Your task to perform on an android device: Open settings Image 0: 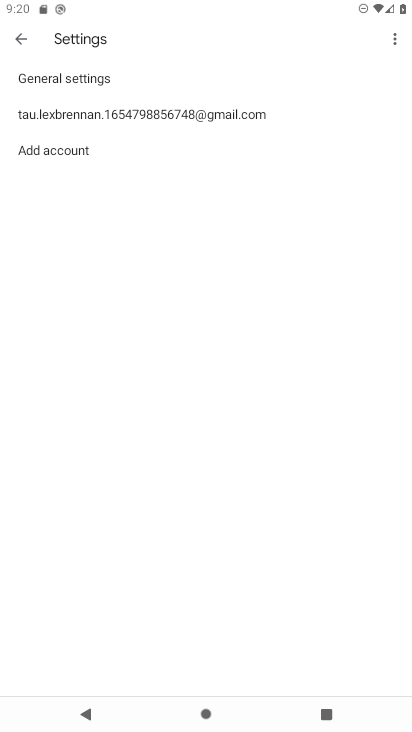
Step 0: press home button
Your task to perform on an android device: Open settings Image 1: 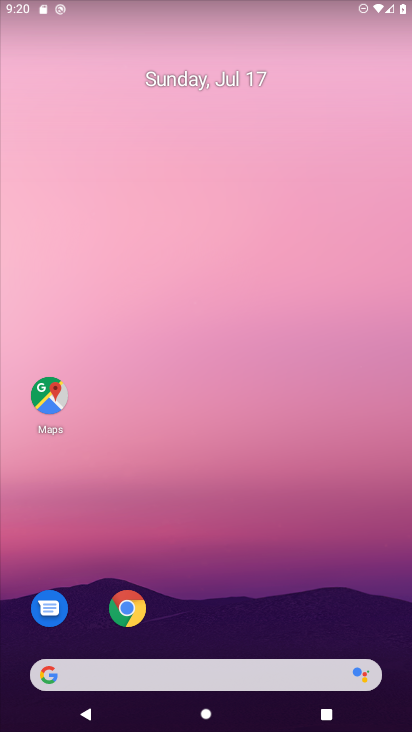
Step 1: drag from (213, 682) to (220, 201)
Your task to perform on an android device: Open settings Image 2: 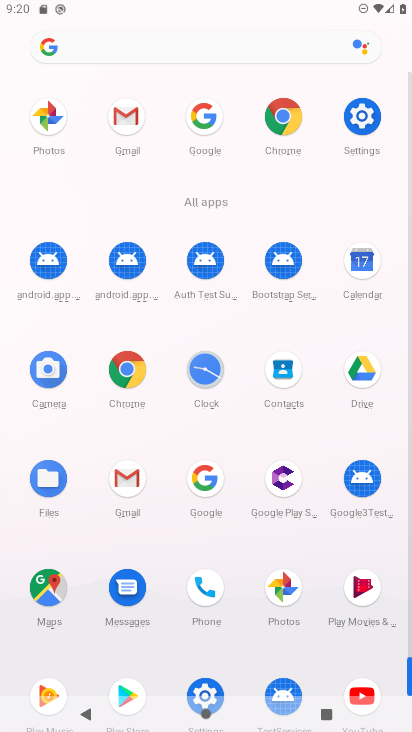
Step 2: click (357, 115)
Your task to perform on an android device: Open settings Image 3: 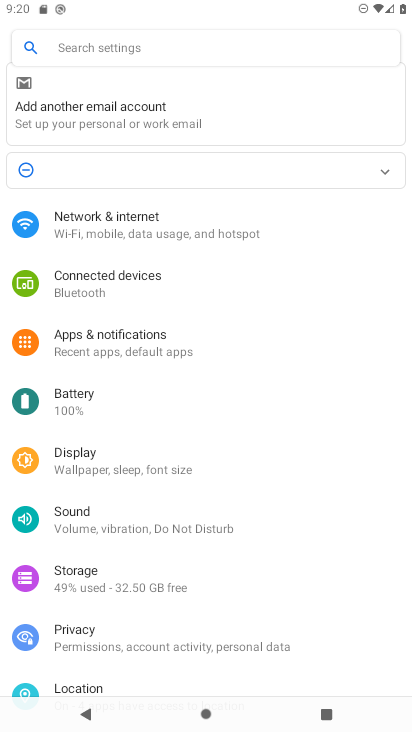
Step 3: task complete